Your task to perform on an android device: Open network settings Image 0: 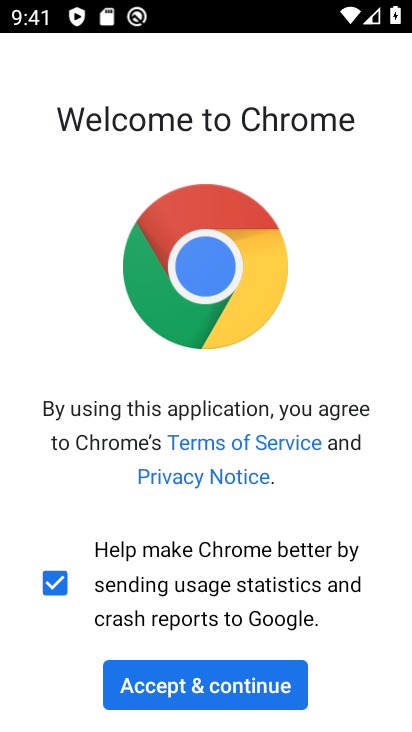
Step 0: press home button
Your task to perform on an android device: Open network settings Image 1: 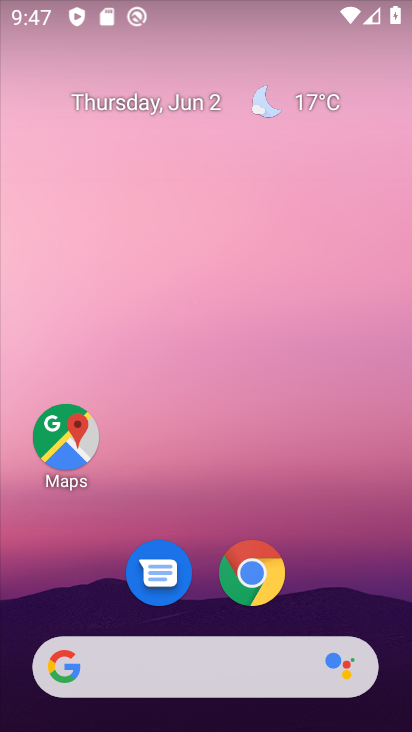
Step 1: task complete